Your task to perform on an android device: all mails in gmail Image 0: 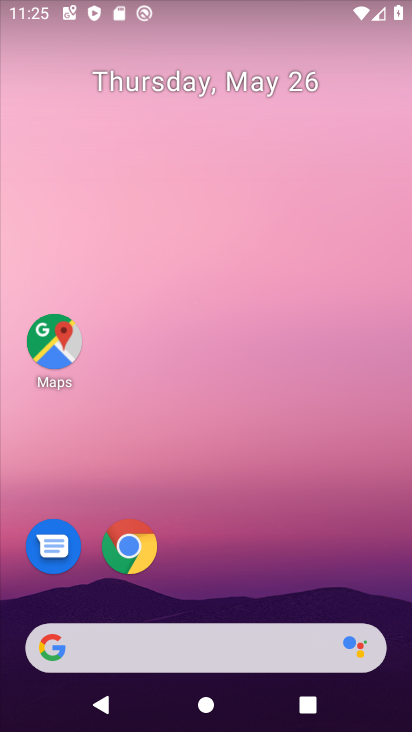
Step 0: drag from (232, 577) to (234, 85)
Your task to perform on an android device: all mails in gmail Image 1: 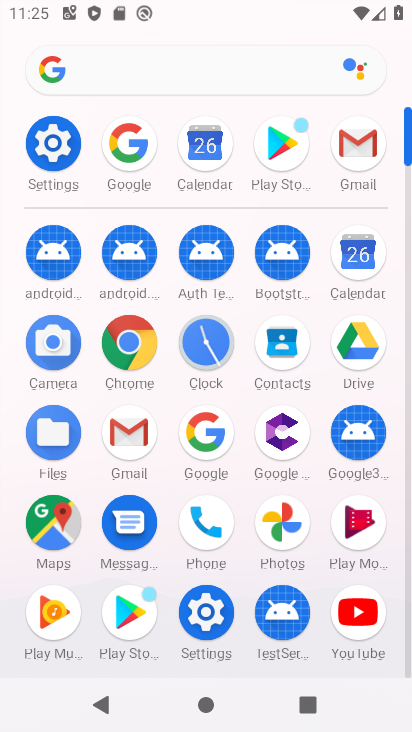
Step 1: click (354, 142)
Your task to perform on an android device: all mails in gmail Image 2: 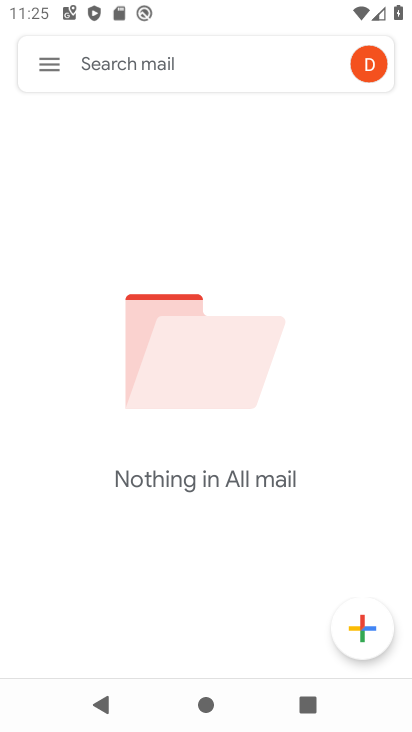
Step 2: task complete